Your task to perform on an android device: Go to accessibility settings Image 0: 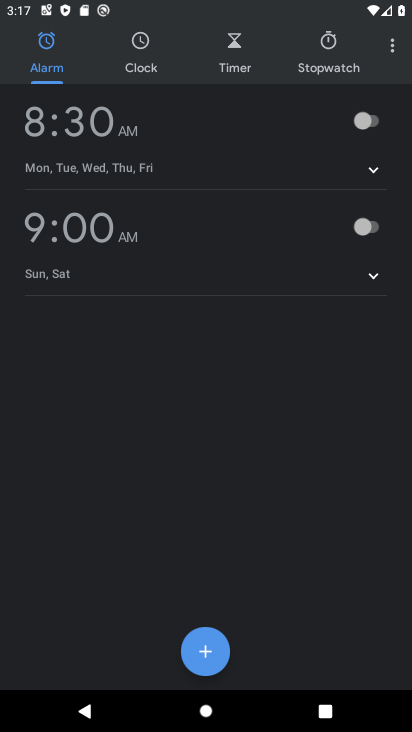
Step 0: press home button
Your task to perform on an android device: Go to accessibility settings Image 1: 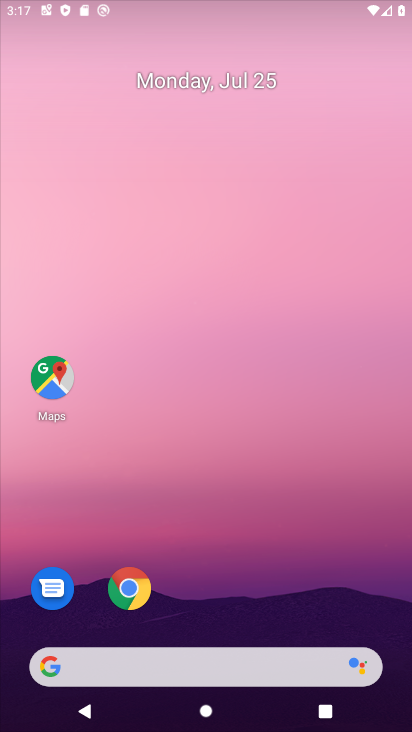
Step 1: drag from (292, 573) to (262, 159)
Your task to perform on an android device: Go to accessibility settings Image 2: 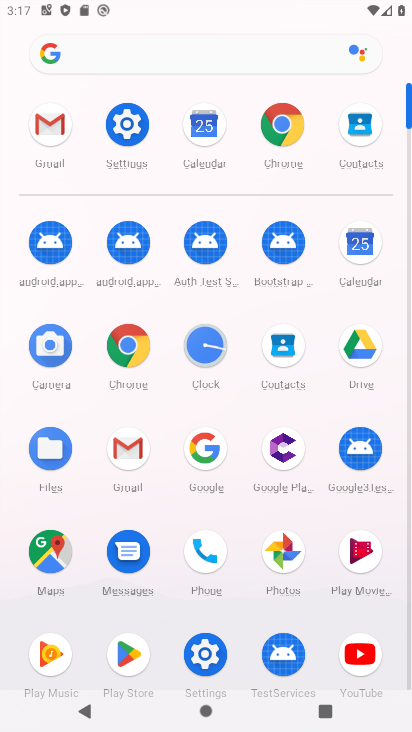
Step 2: click (117, 123)
Your task to perform on an android device: Go to accessibility settings Image 3: 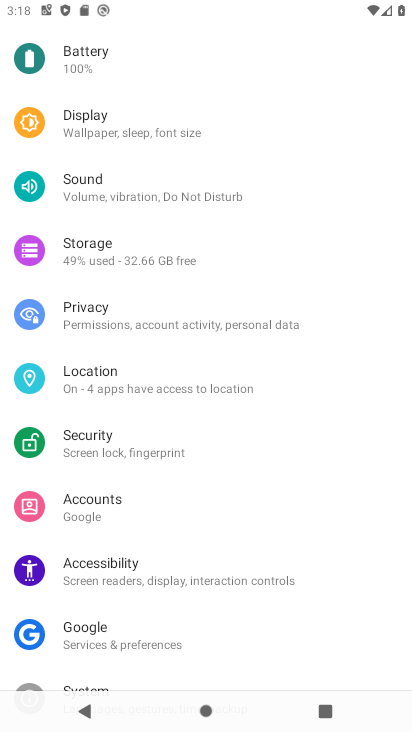
Step 3: click (152, 584)
Your task to perform on an android device: Go to accessibility settings Image 4: 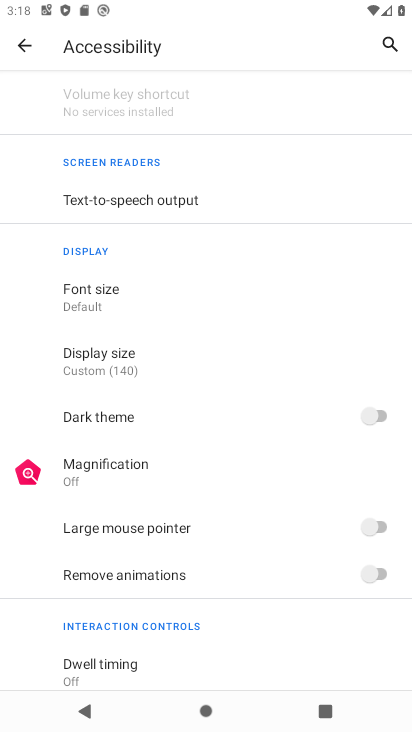
Step 4: task complete